Your task to perform on an android device: Open calendar and show me the first week of next month Image 0: 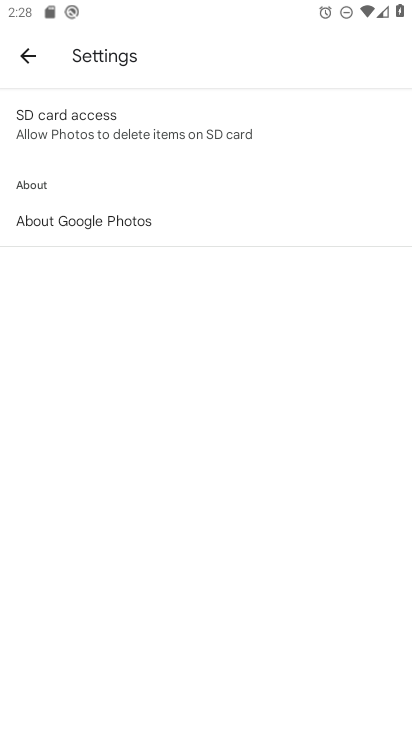
Step 0: press home button
Your task to perform on an android device: Open calendar and show me the first week of next month Image 1: 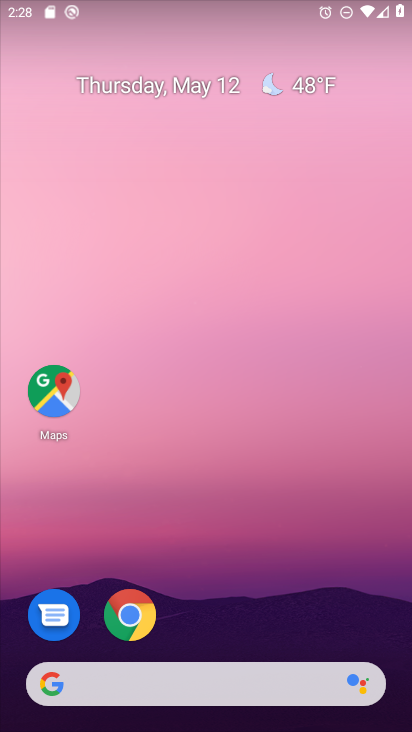
Step 1: drag from (170, 697) to (207, 13)
Your task to perform on an android device: Open calendar and show me the first week of next month Image 2: 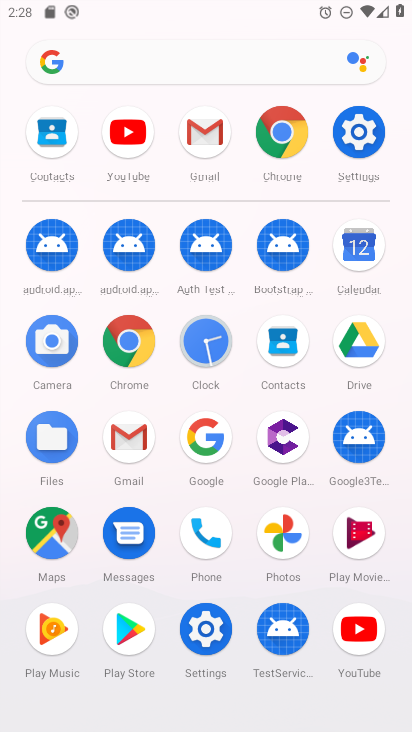
Step 2: click (350, 256)
Your task to perform on an android device: Open calendar and show me the first week of next month Image 3: 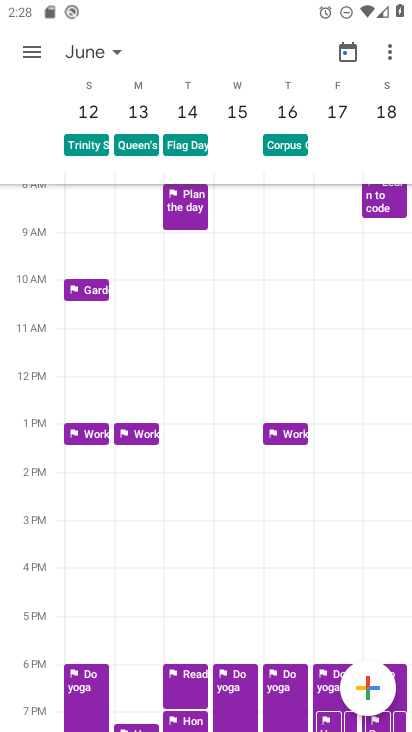
Step 3: click (112, 48)
Your task to perform on an android device: Open calendar and show me the first week of next month Image 4: 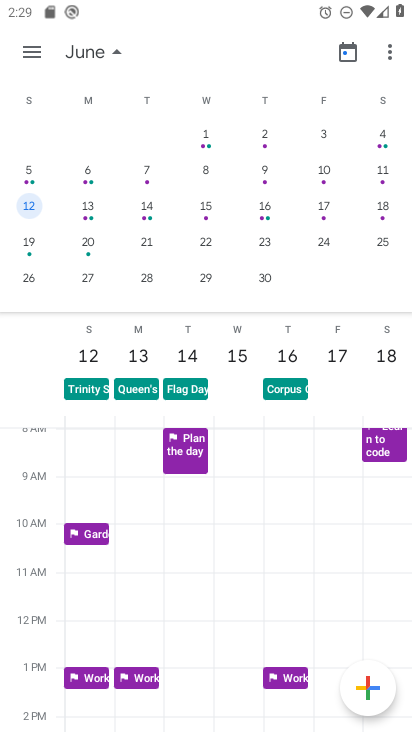
Step 4: click (321, 127)
Your task to perform on an android device: Open calendar and show me the first week of next month Image 5: 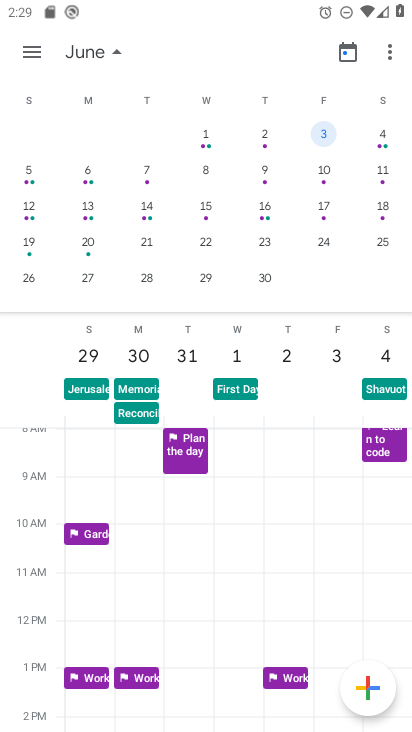
Step 5: task complete